Your task to perform on an android device: allow notifications from all sites in the chrome app Image 0: 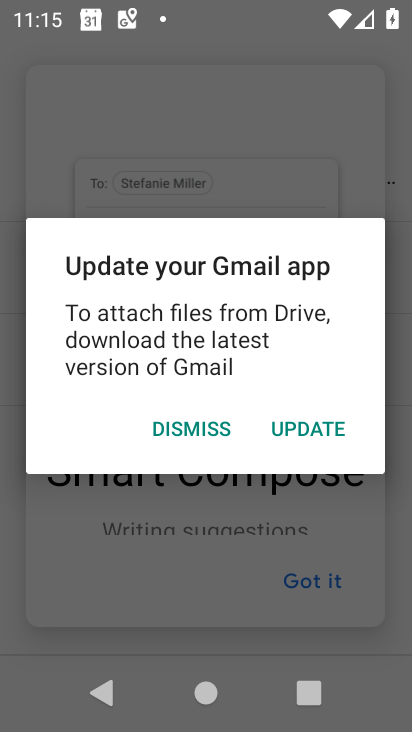
Step 0: press home button
Your task to perform on an android device: allow notifications from all sites in the chrome app Image 1: 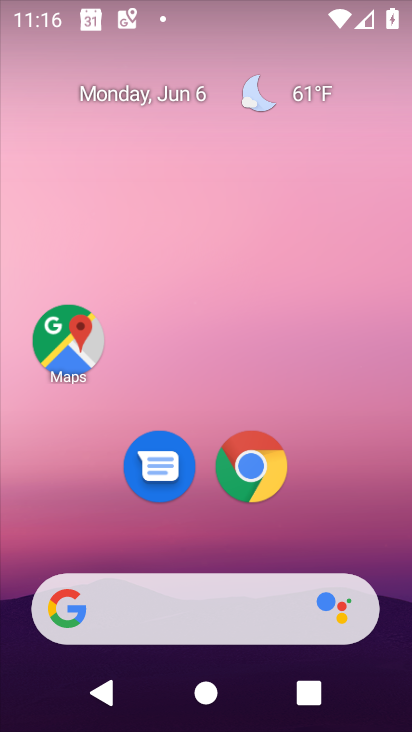
Step 1: drag from (390, 520) to (394, 47)
Your task to perform on an android device: allow notifications from all sites in the chrome app Image 2: 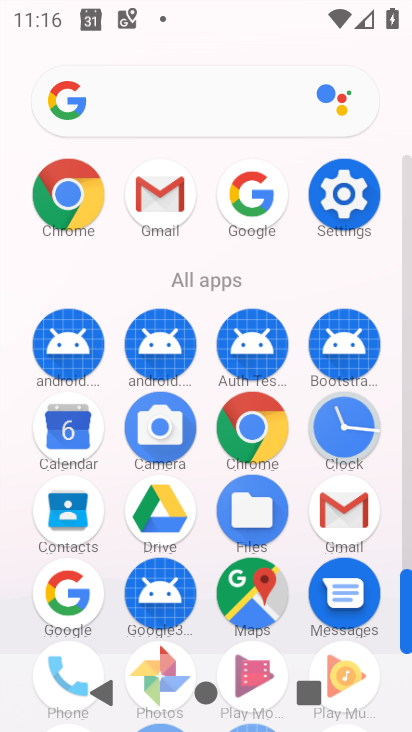
Step 2: click (53, 224)
Your task to perform on an android device: allow notifications from all sites in the chrome app Image 3: 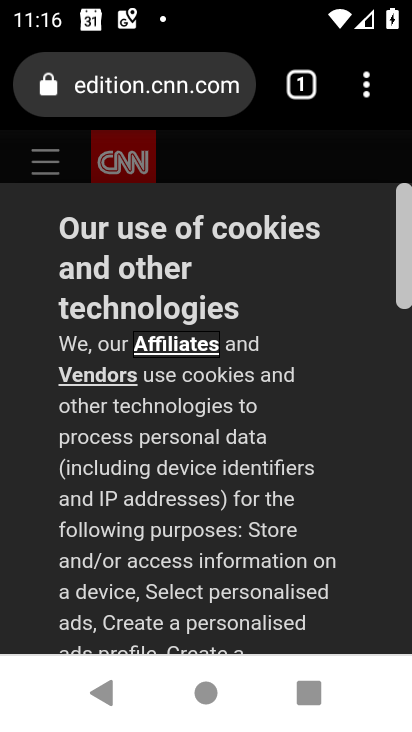
Step 3: drag from (388, 80) to (234, 486)
Your task to perform on an android device: allow notifications from all sites in the chrome app Image 4: 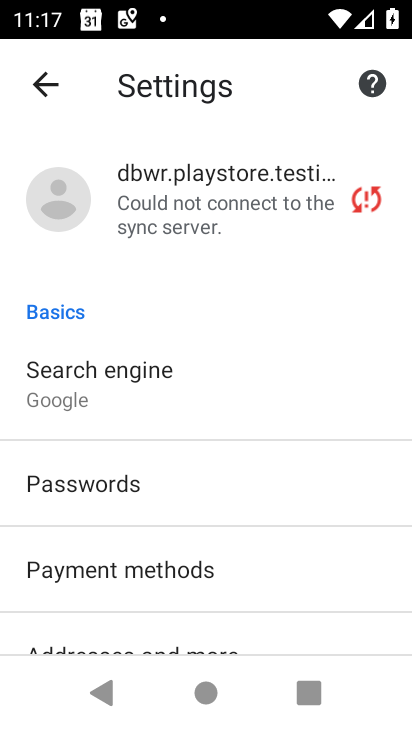
Step 4: drag from (182, 580) to (215, 166)
Your task to perform on an android device: allow notifications from all sites in the chrome app Image 5: 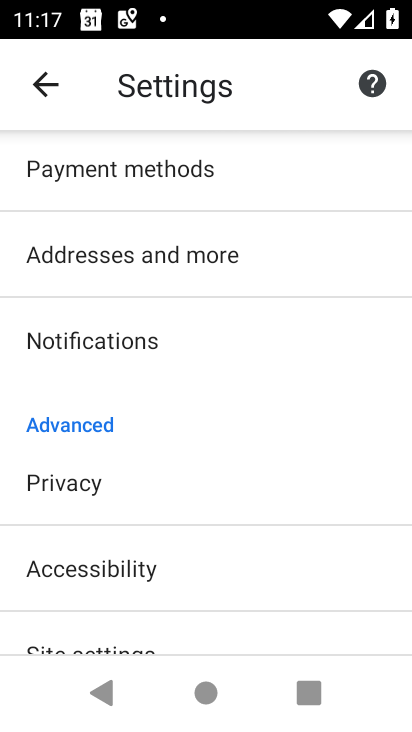
Step 5: drag from (219, 617) to (225, 470)
Your task to perform on an android device: allow notifications from all sites in the chrome app Image 6: 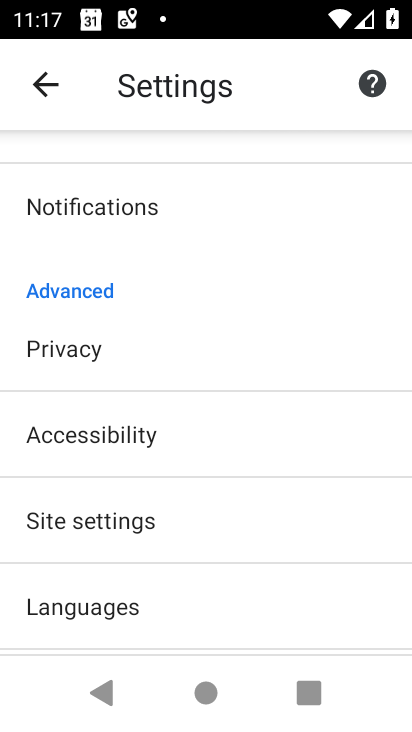
Step 6: click (60, 517)
Your task to perform on an android device: allow notifications from all sites in the chrome app Image 7: 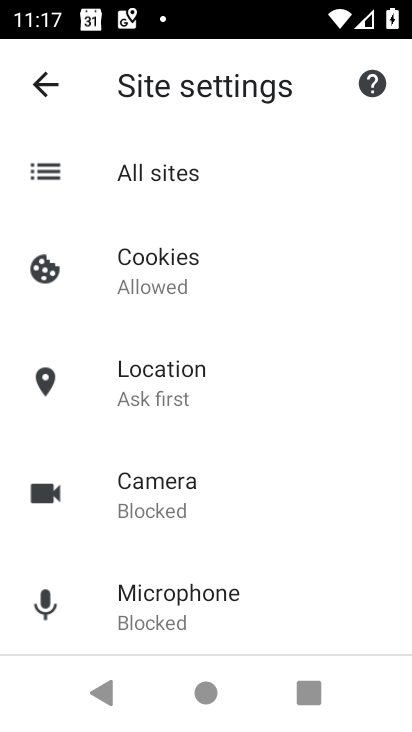
Step 7: drag from (170, 560) to (280, 683)
Your task to perform on an android device: allow notifications from all sites in the chrome app Image 8: 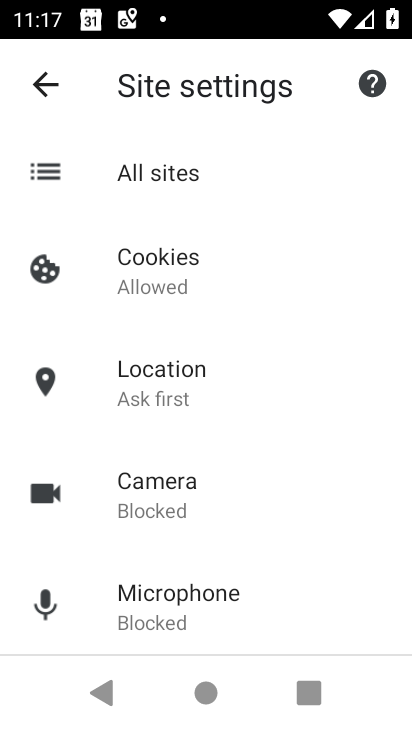
Step 8: click (216, 182)
Your task to perform on an android device: allow notifications from all sites in the chrome app Image 9: 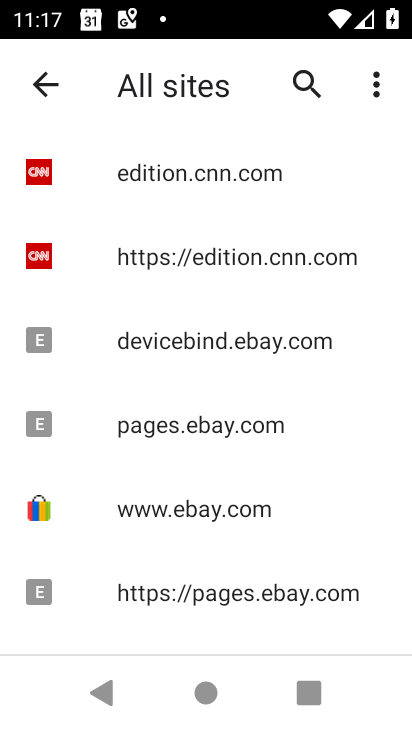
Step 9: drag from (205, 515) to (214, 207)
Your task to perform on an android device: allow notifications from all sites in the chrome app Image 10: 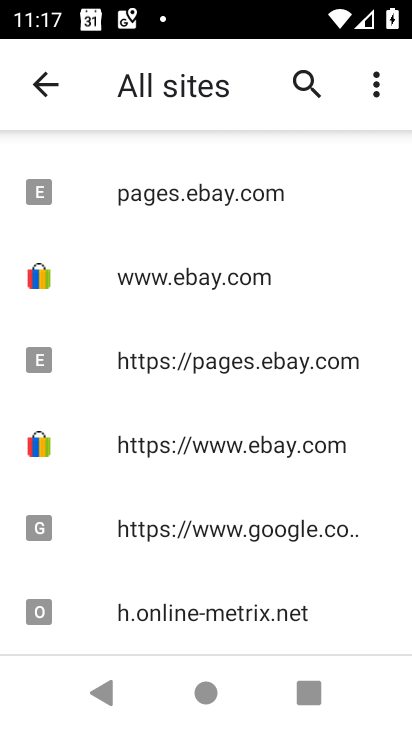
Step 10: click (188, 552)
Your task to perform on an android device: allow notifications from all sites in the chrome app Image 11: 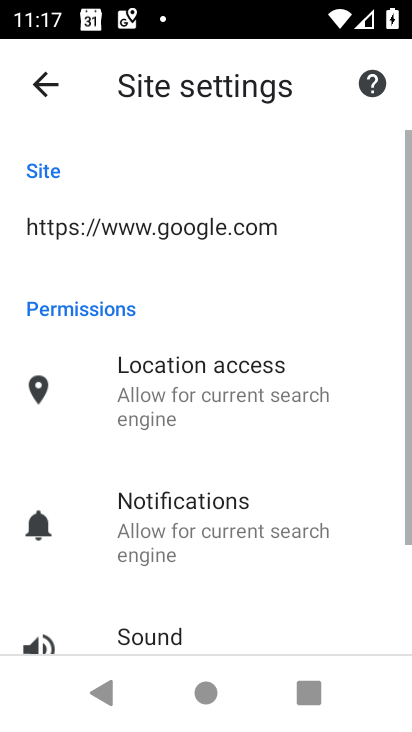
Step 11: click (188, 552)
Your task to perform on an android device: allow notifications from all sites in the chrome app Image 12: 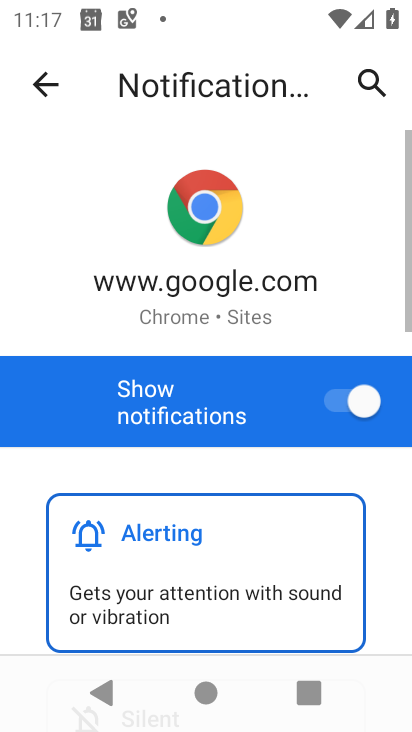
Step 12: drag from (303, 627) to (245, 260)
Your task to perform on an android device: allow notifications from all sites in the chrome app Image 13: 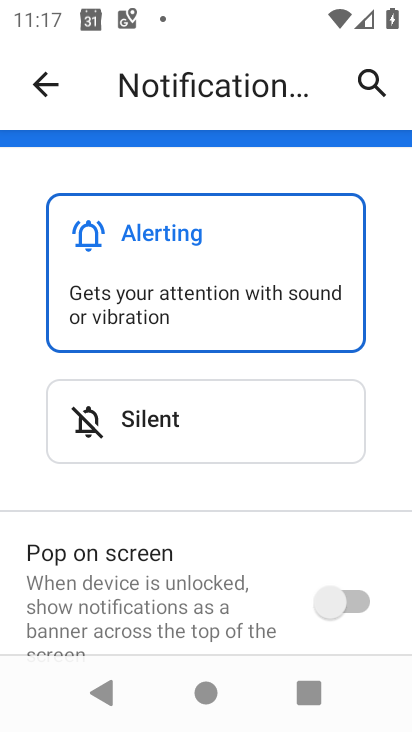
Step 13: click (309, 592)
Your task to perform on an android device: allow notifications from all sites in the chrome app Image 14: 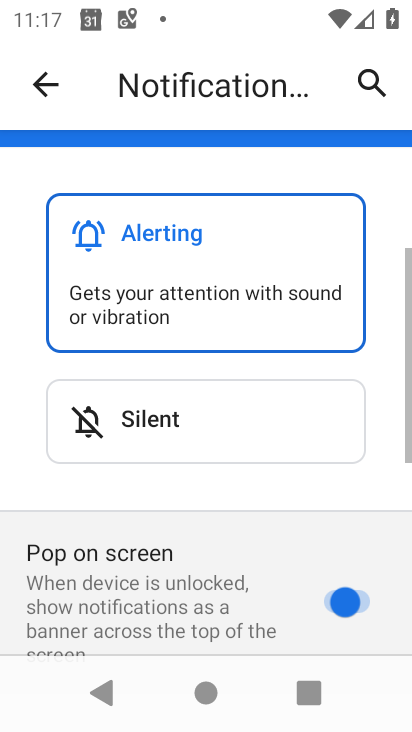
Step 14: drag from (266, 594) to (295, 143)
Your task to perform on an android device: allow notifications from all sites in the chrome app Image 15: 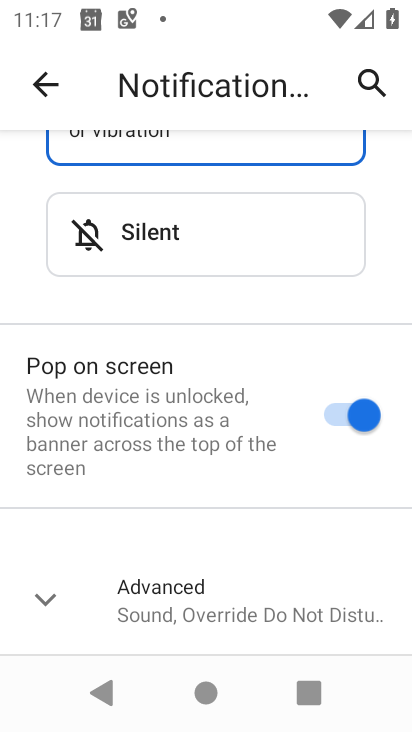
Step 15: click (275, 586)
Your task to perform on an android device: allow notifications from all sites in the chrome app Image 16: 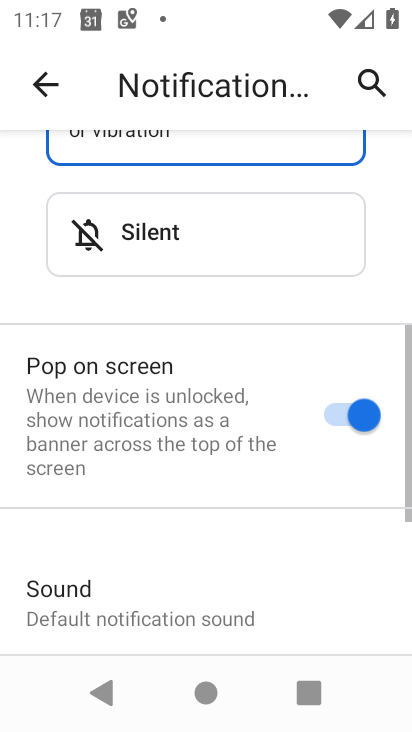
Step 16: drag from (279, 599) to (258, 172)
Your task to perform on an android device: allow notifications from all sites in the chrome app Image 17: 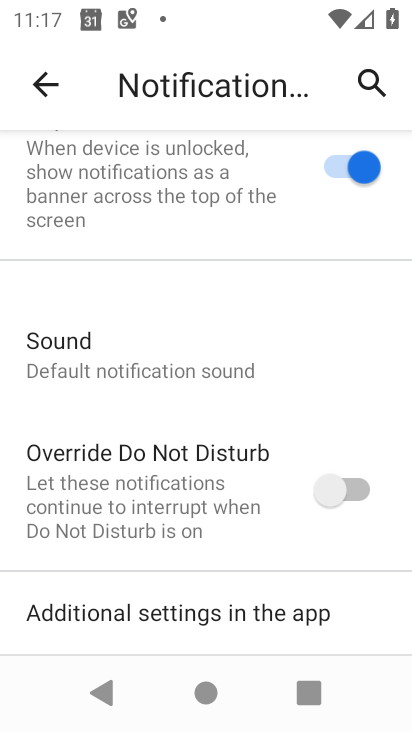
Step 17: click (250, 531)
Your task to perform on an android device: allow notifications from all sites in the chrome app Image 18: 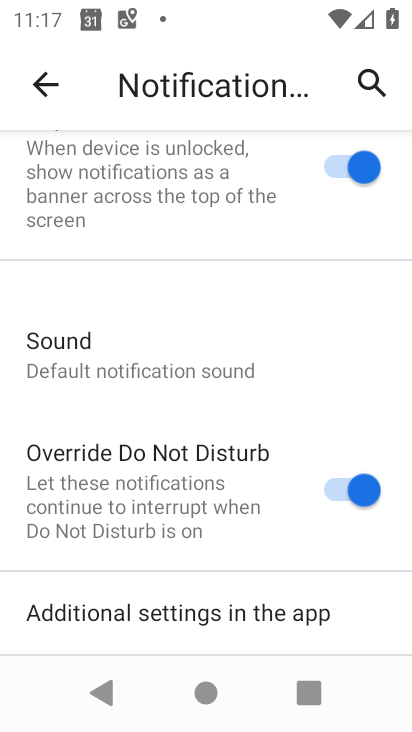
Step 18: task complete